Your task to perform on an android device: Add logitech g933 to the cart on ebay.com Image 0: 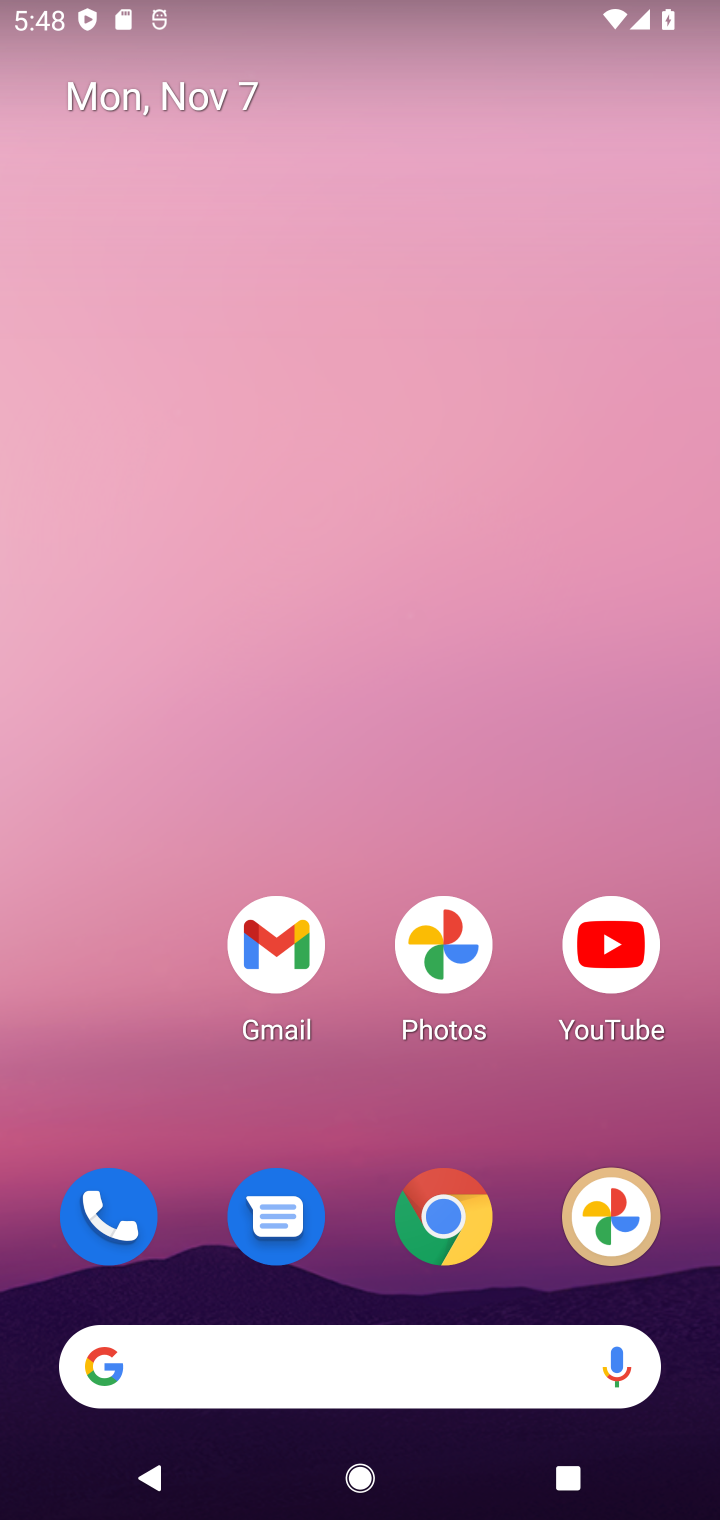
Step 0: drag from (312, 891) to (282, 172)
Your task to perform on an android device: Add logitech g933 to the cart on ebay.com Image 1: 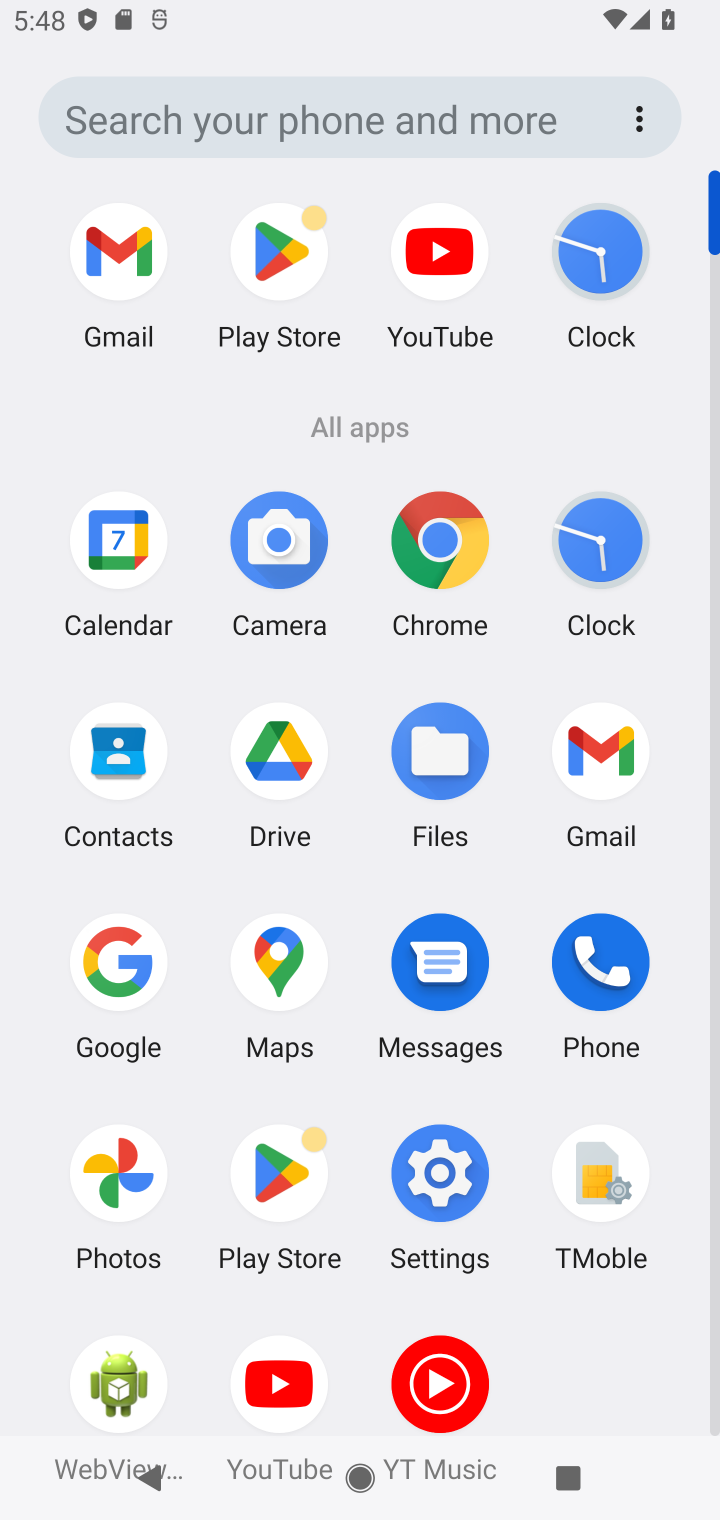
Step 1: click (436, 548)
Your task to perform on an android device: Add logitech g933 to the cart on ebay.com Image 2: 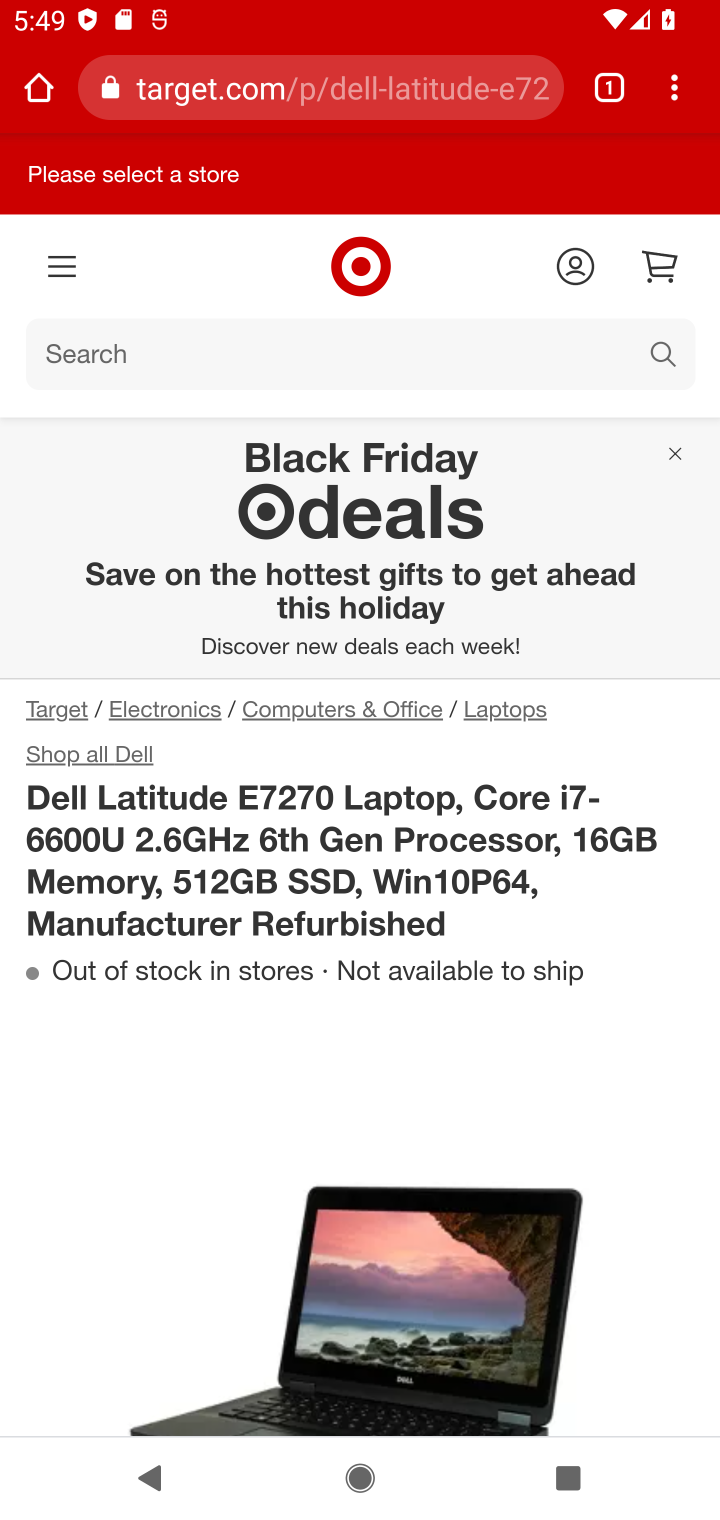
Step 2: click (414, 92)
Your task to perform on an android device: Add logitech g933 to the cart on ebay.com Image 3: 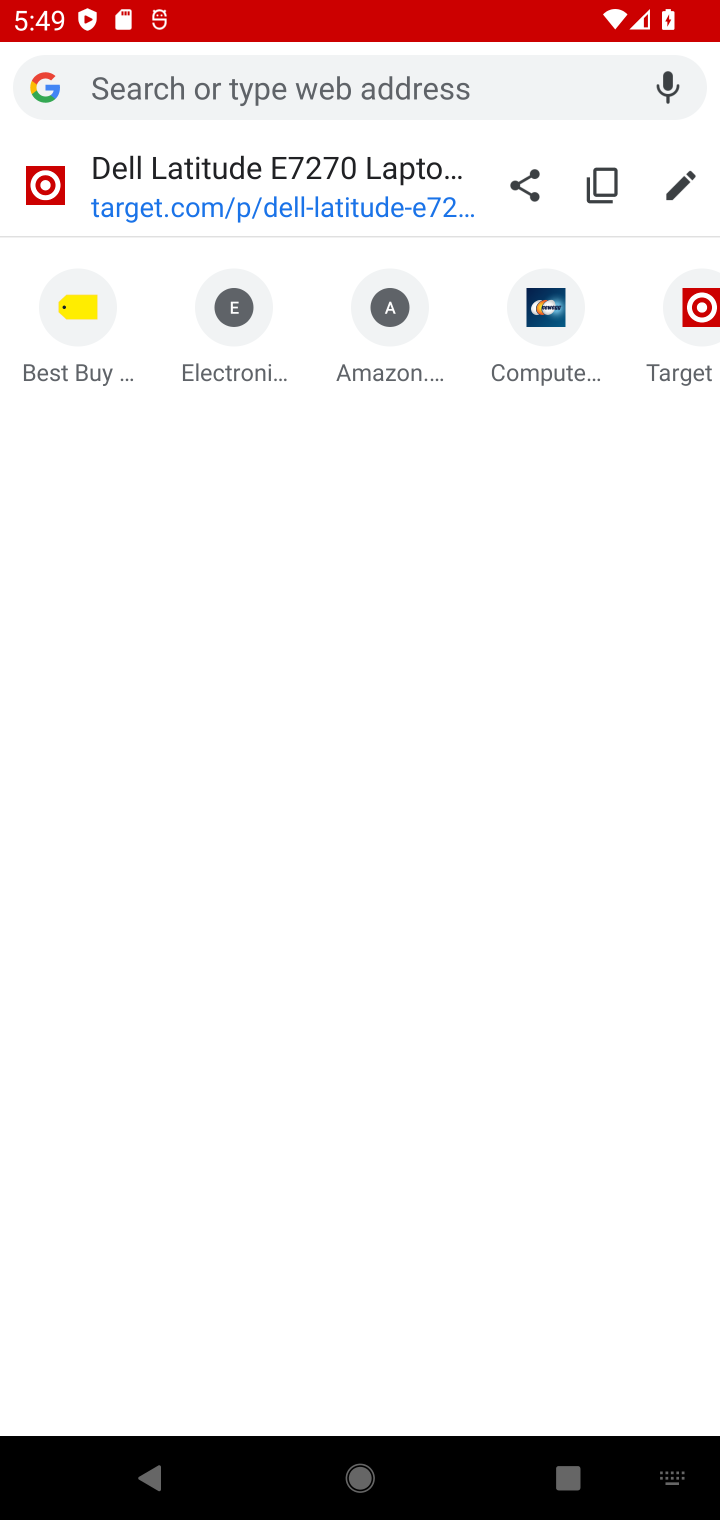
Step 3: type "ebay.com"
Your task to perform on an android device: Add logitech g933 to the cart on ebay.com Image 4: 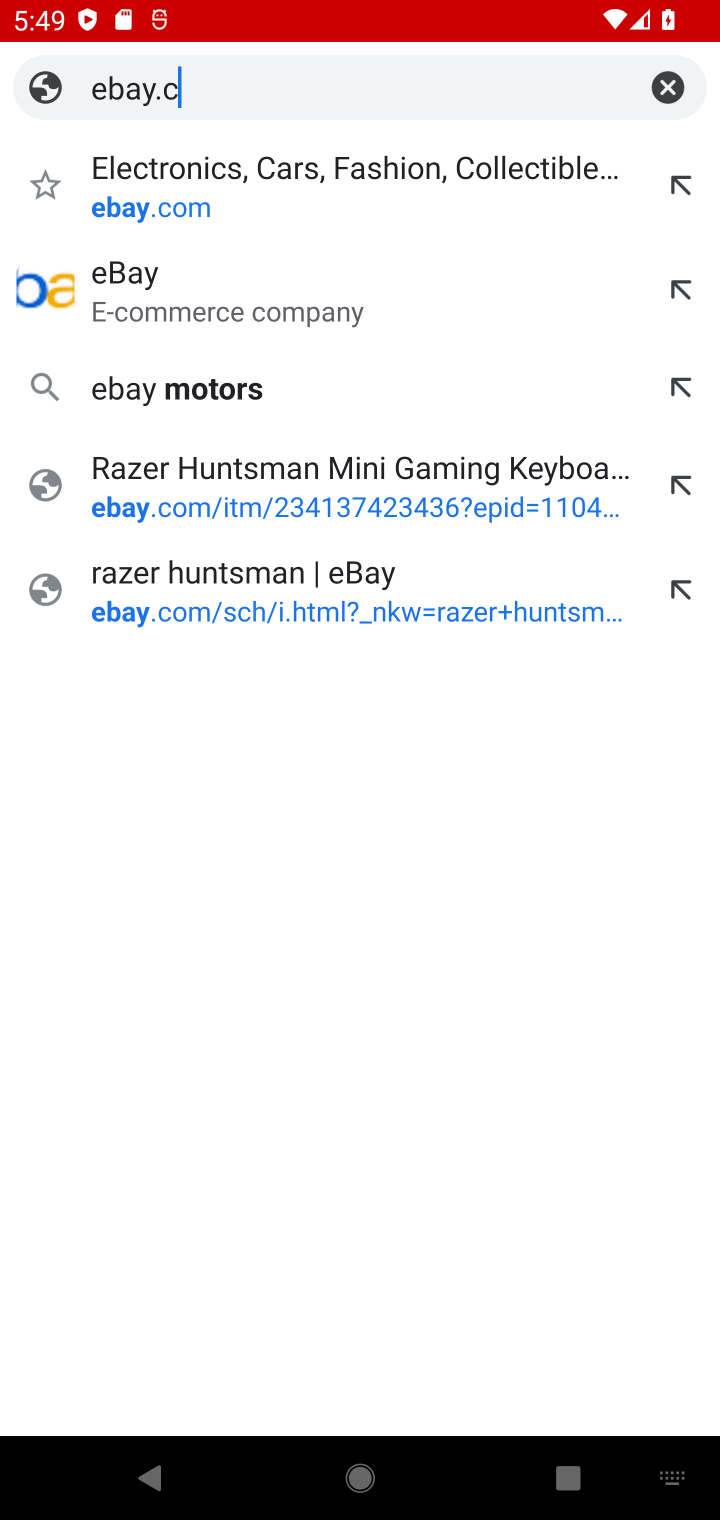
Step 4: press enter
Your task to perform on an android device: Add logitech g933 to the cart on ebay.com Image 5: 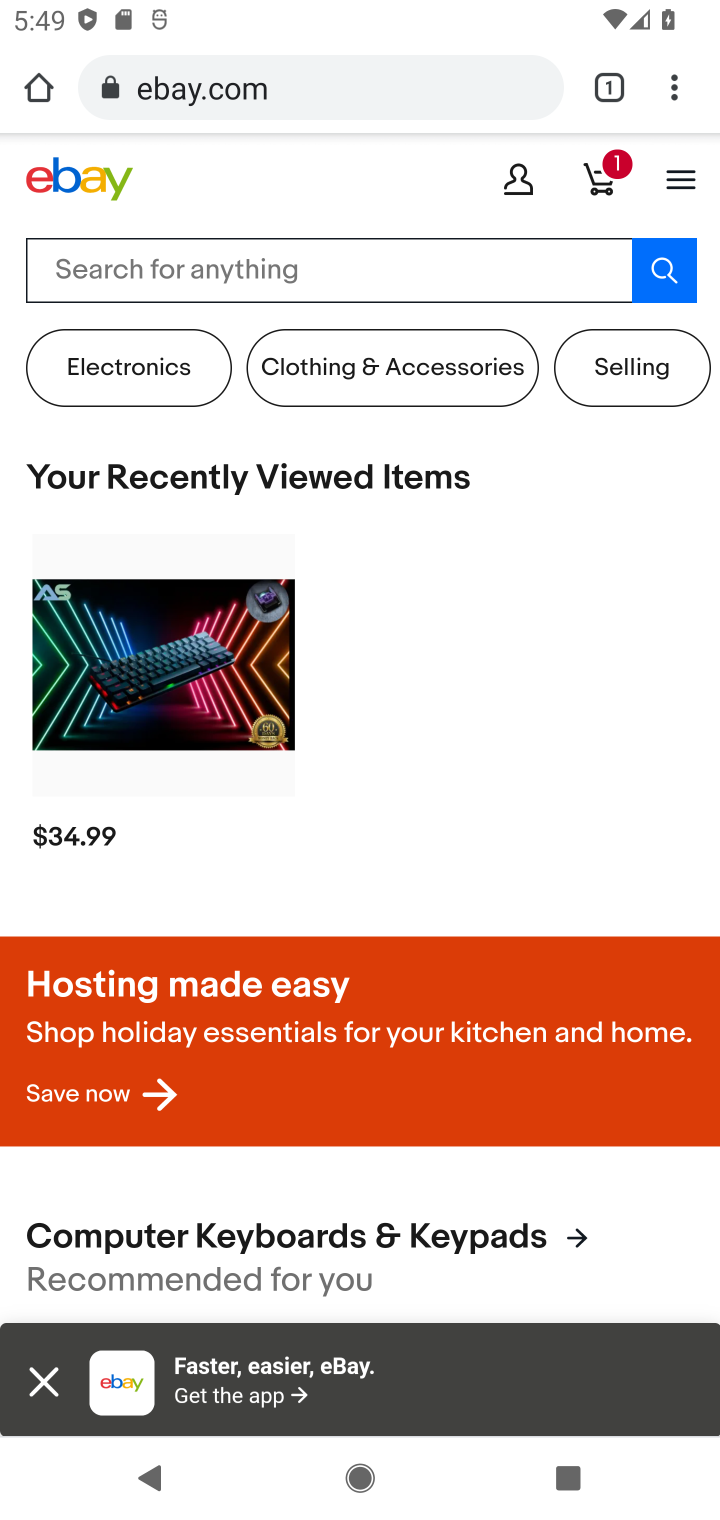
Step 5: click (390, 276)
Your task to perform on an android device: Add logitech g933 to the cart on ebay.com Image 6: 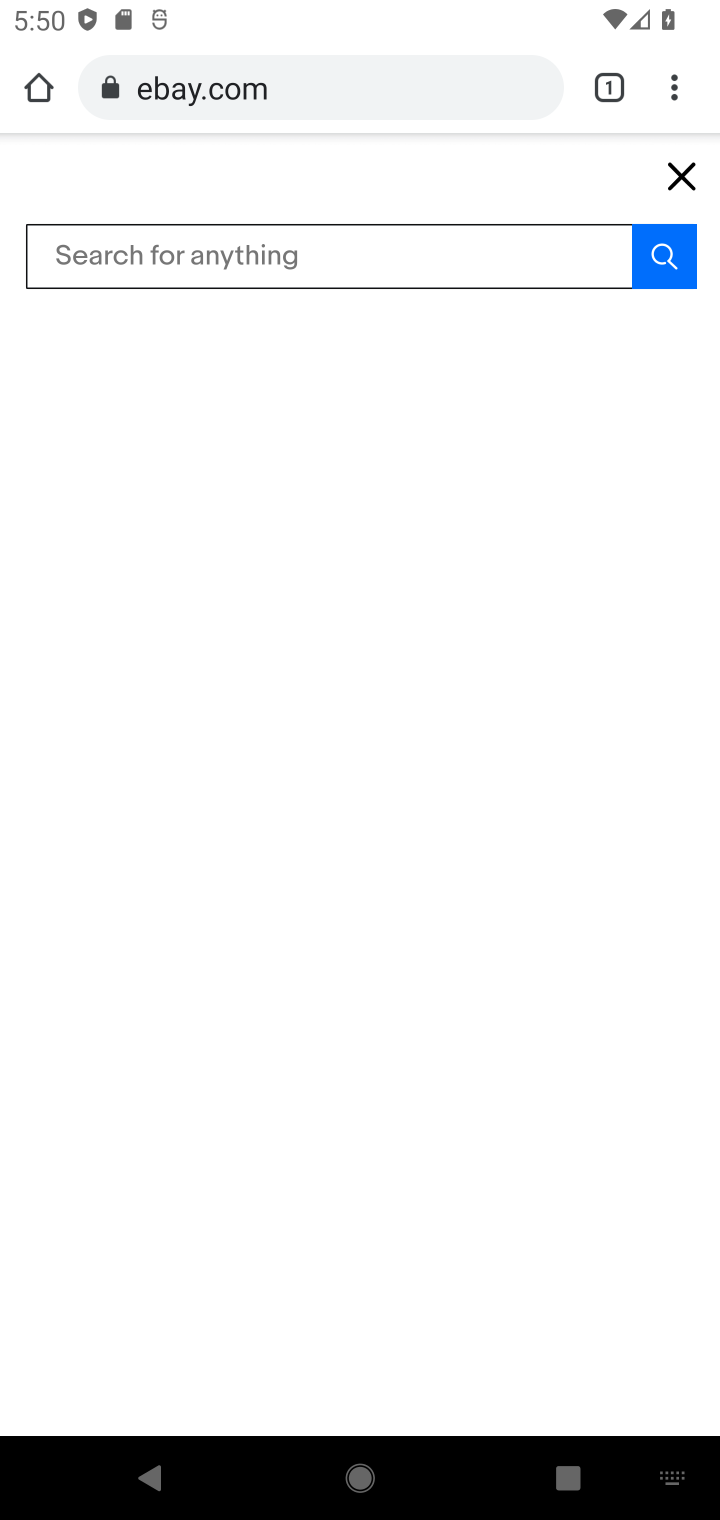
Step 6: type "logitech g933"
Your task to perform on an android device: Add logitech g933 to the cart on ebay.com Image 7: 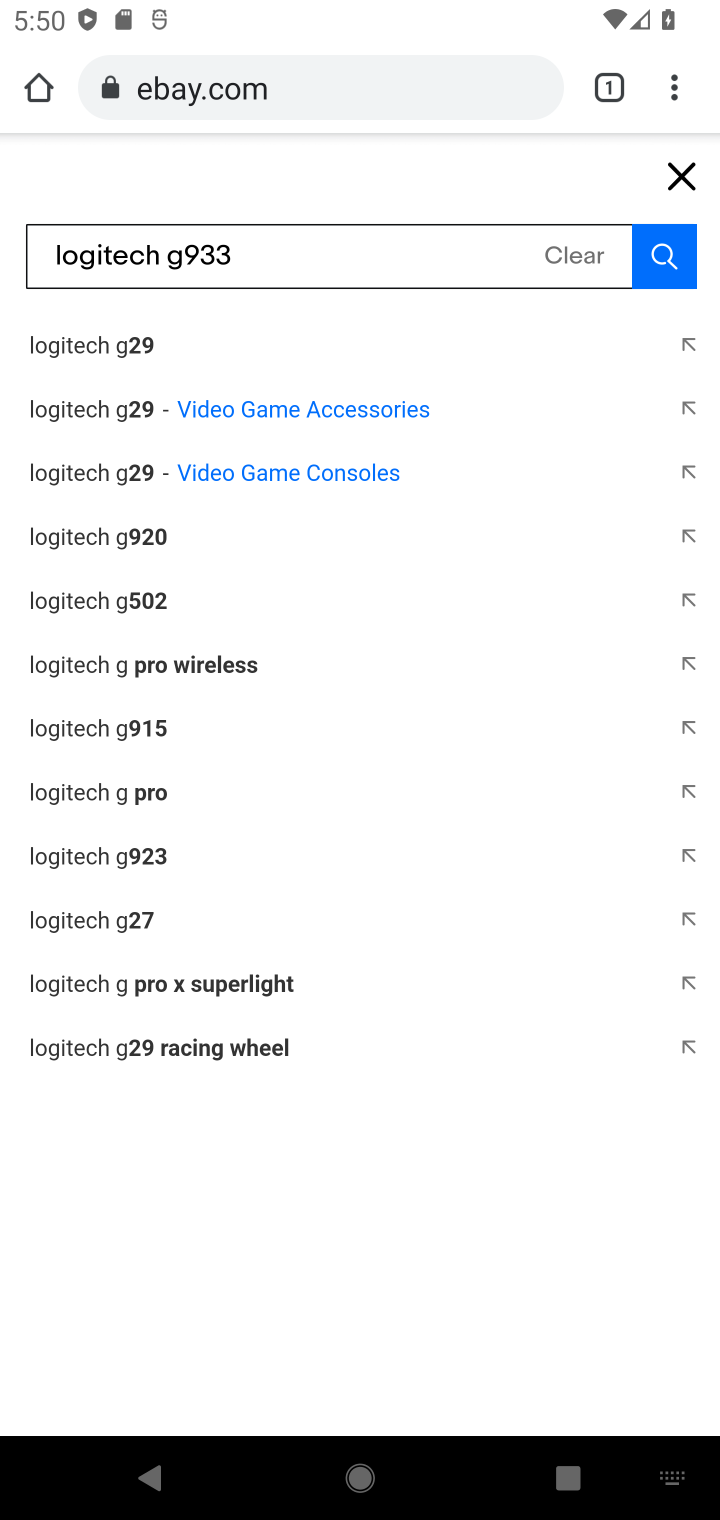
Step 7: press enter
Your task to perform on an android device: Add logitech g933 to the cart on ebay.com Image 8: 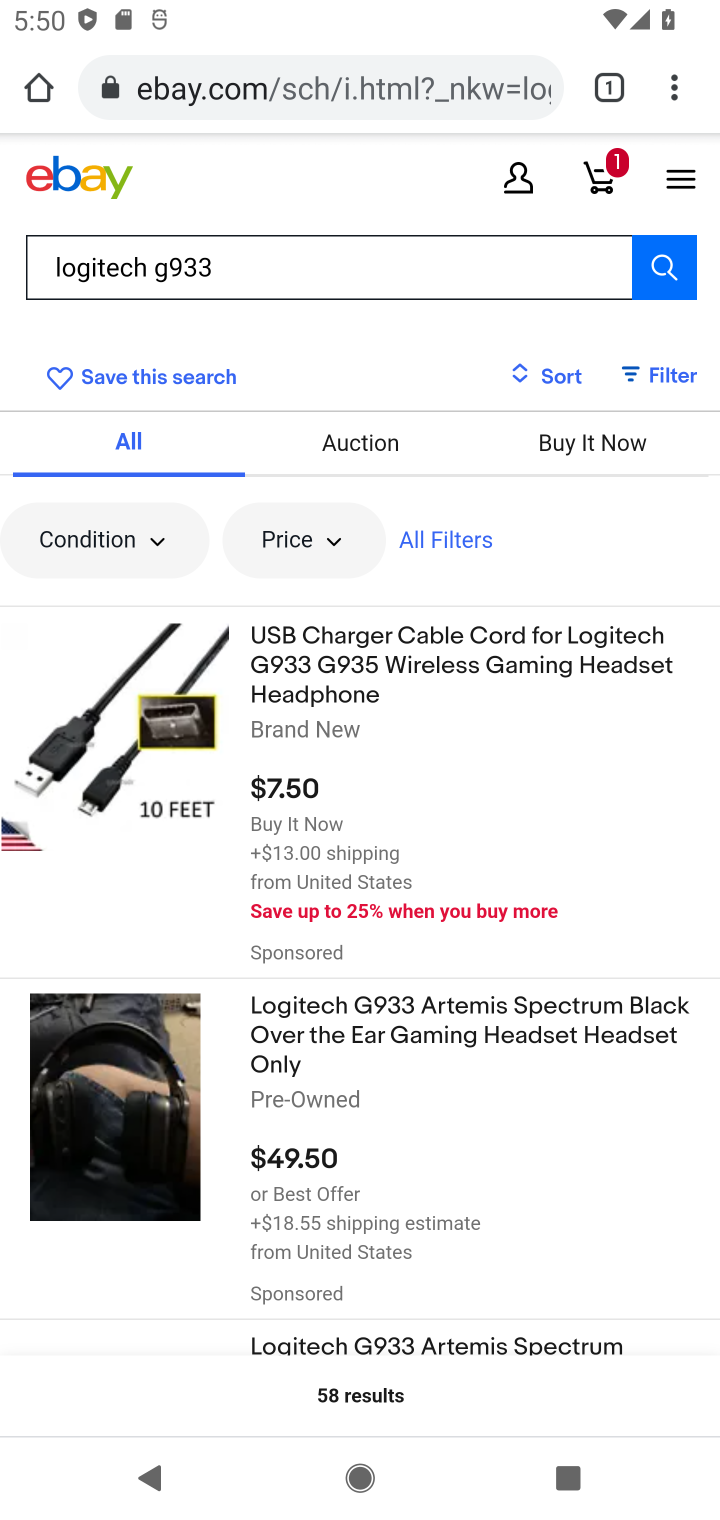
Step 8: click (356, 1028)
Your task to perform on an android device: Add logitech g933 to the cart on ebay.com Image 9: 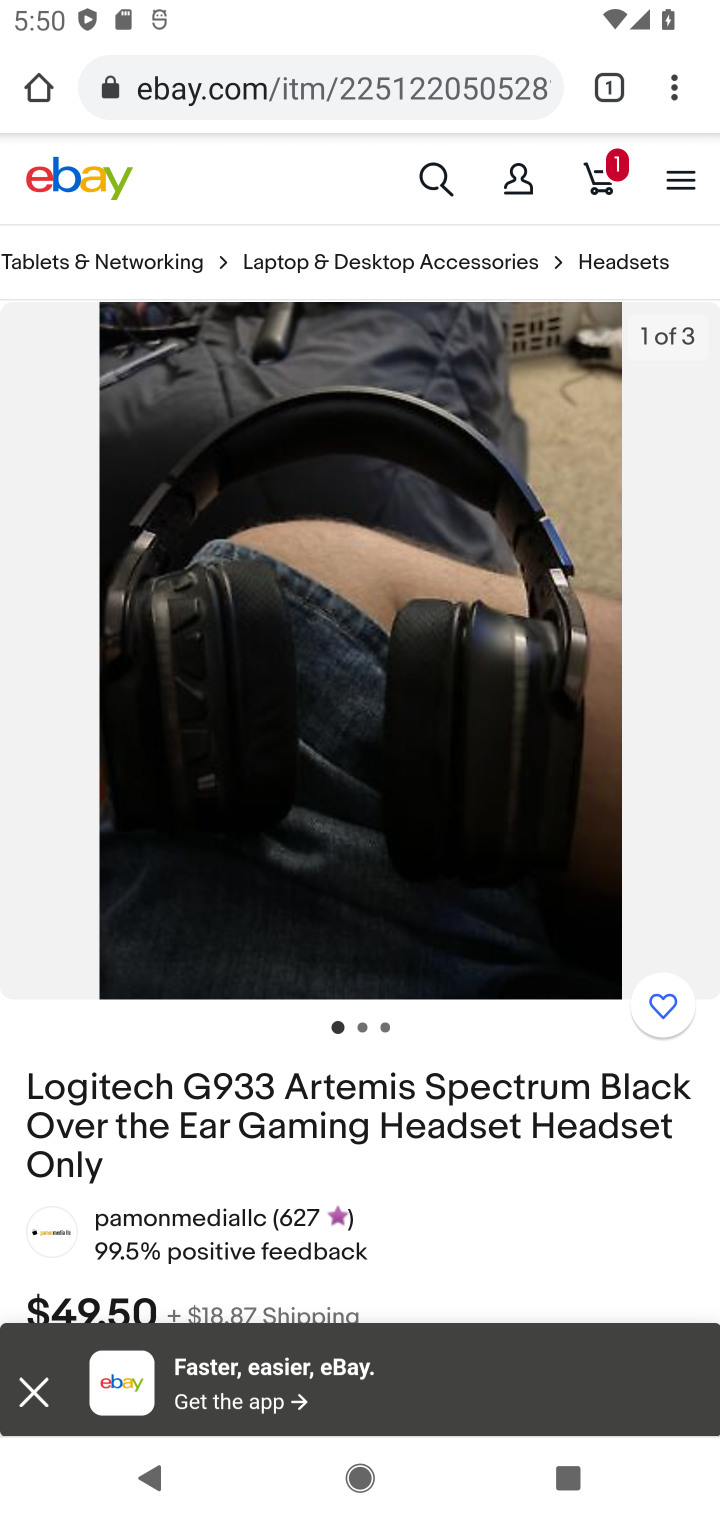
Step 9: drag from (262, 1261) to (451, 167)
Your task to perform on an android device: Add logitech g933 to the cart on ebay.com Image 10: 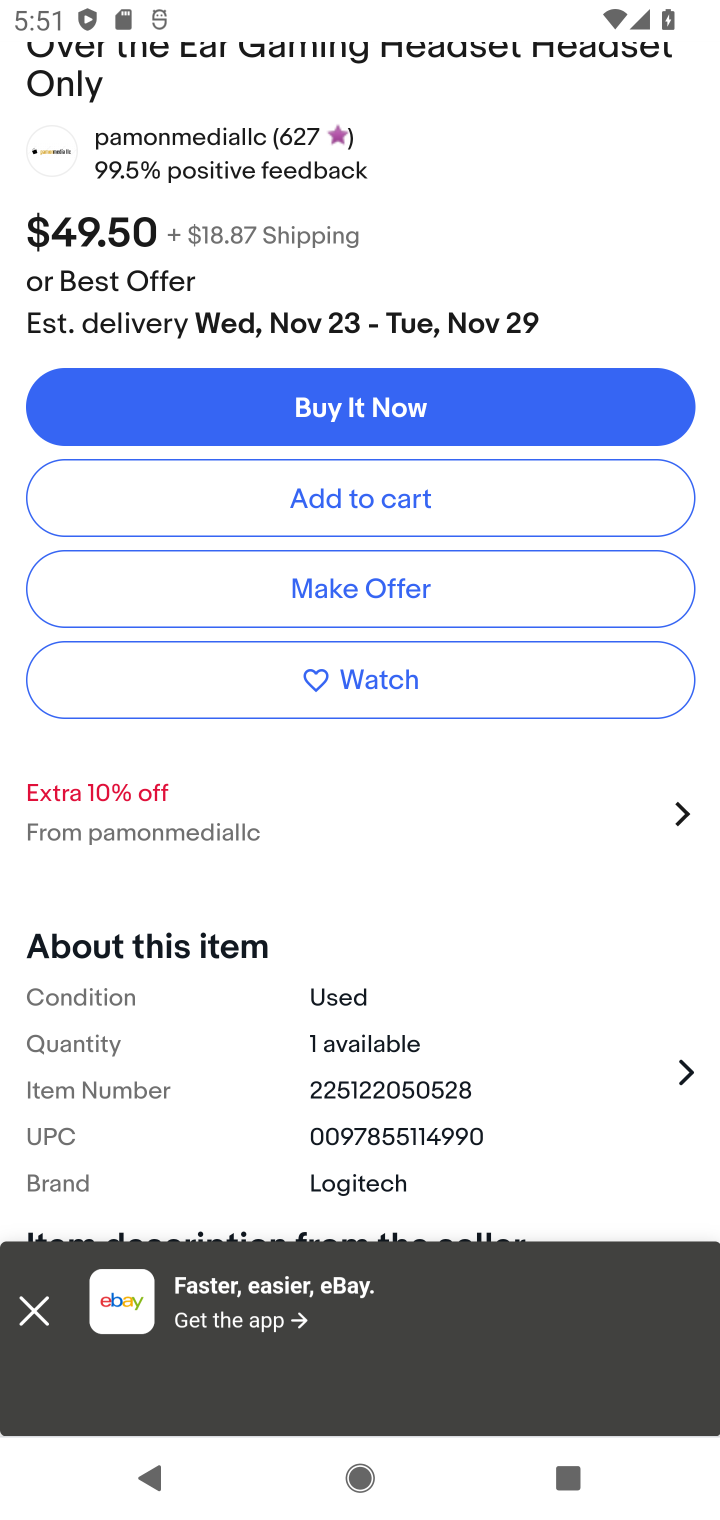
Step 10: click (426, 496)
Your task to perform on an android device: Add logitech g933 to the cart on ebay.com Image 11: 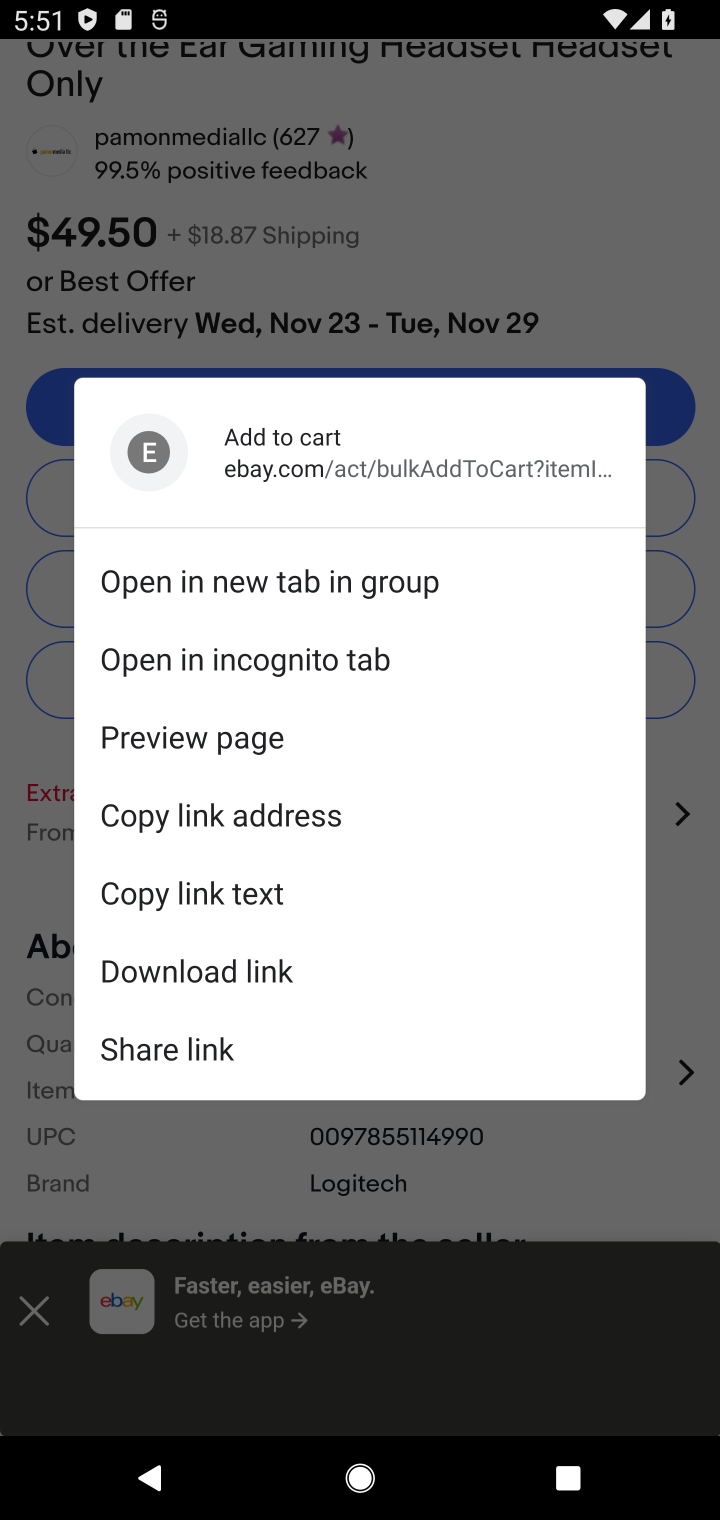
Step 11: click (670, 289)
Your task to perform on an android device: Add logitech g933 to the cart on ebay.com Image 12: 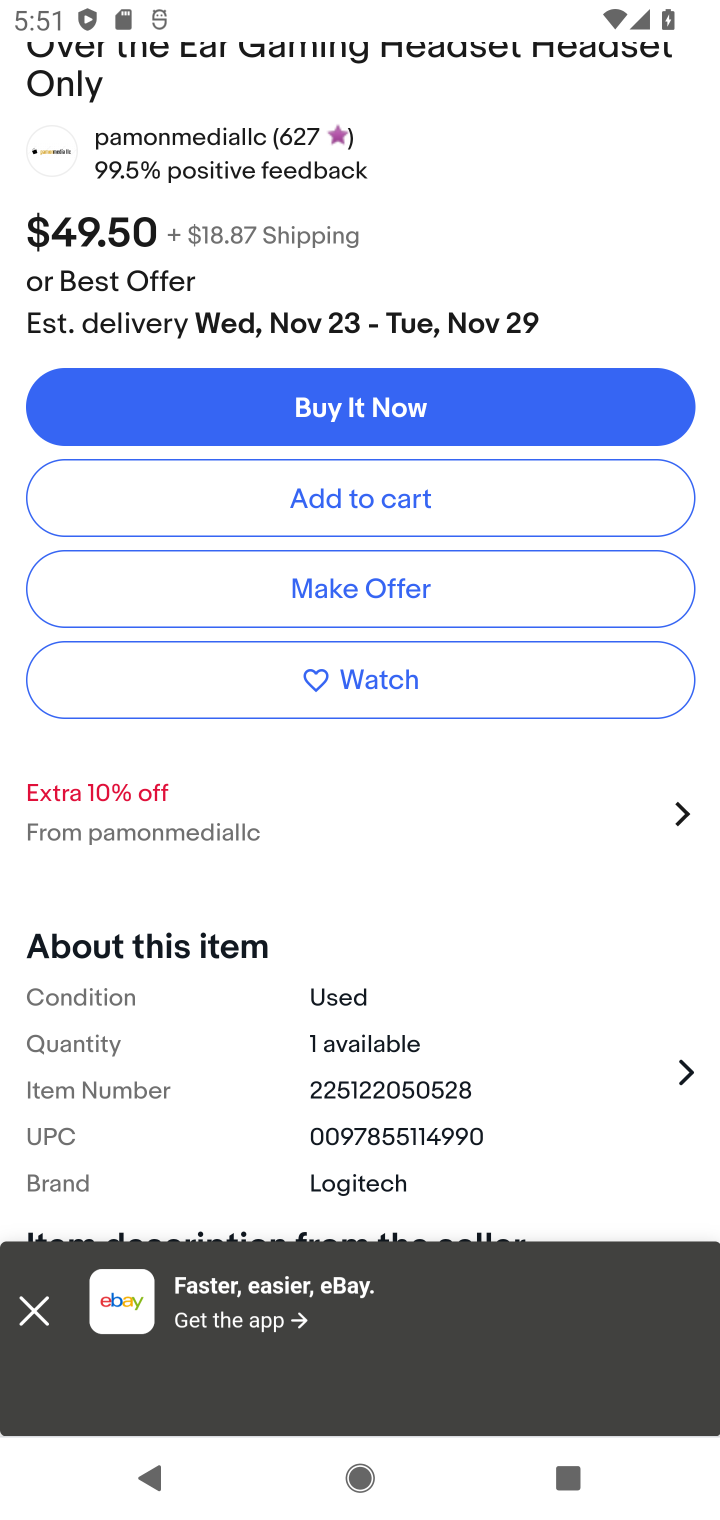
Step 12: click (432, 497)
Your task to perform on an android device: Add logitech g933 to the cart on ebay.com Image 13: 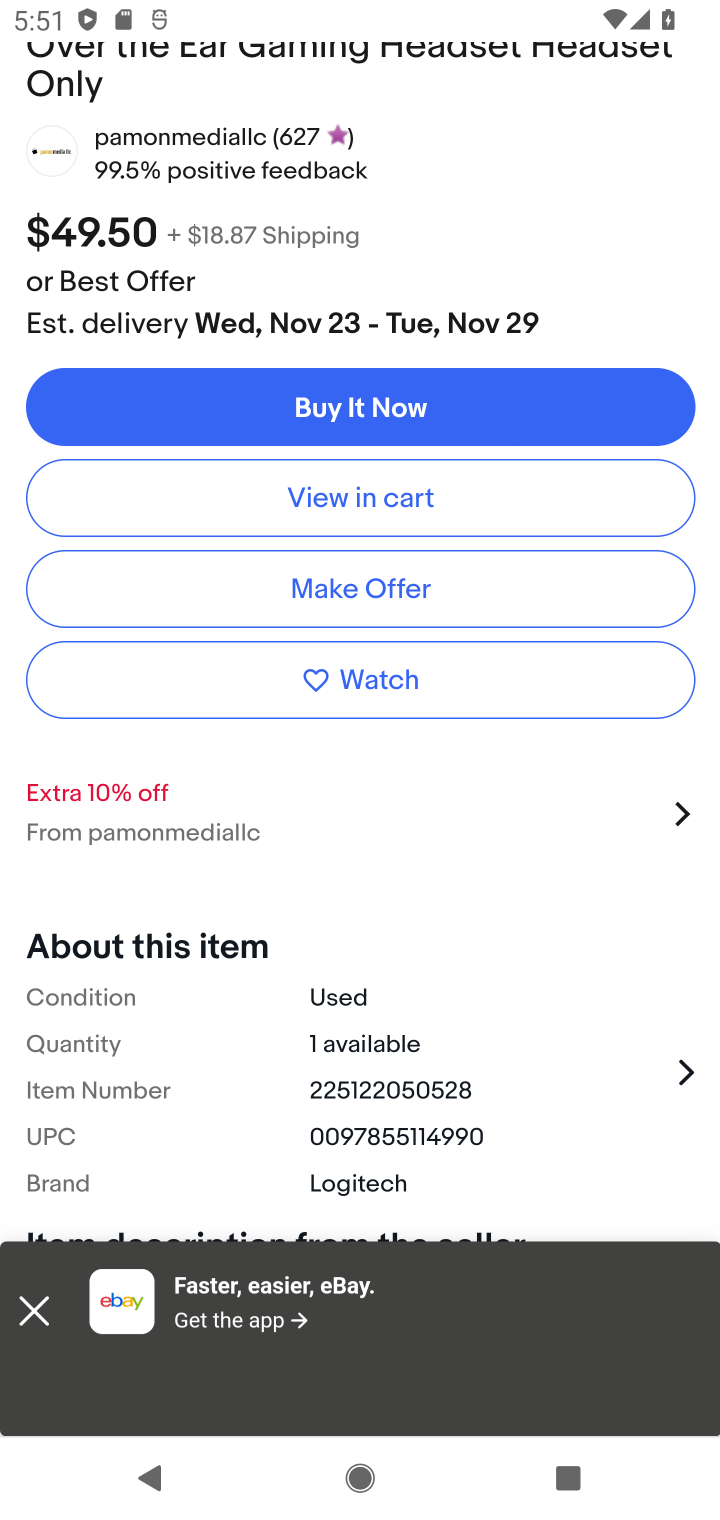
Step 13: task complete